Your task to perform on an android device: turn off javascript in the chrome app Image 0: 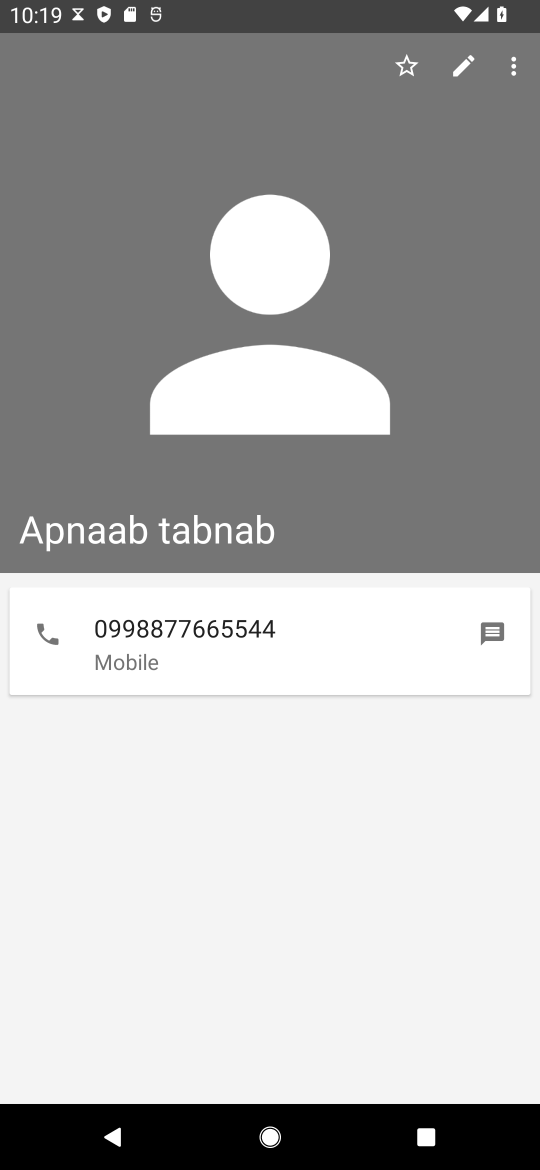
Step 0: press home button
Your task to perform on an android device: turn off javascript in the chrome app Image 1: 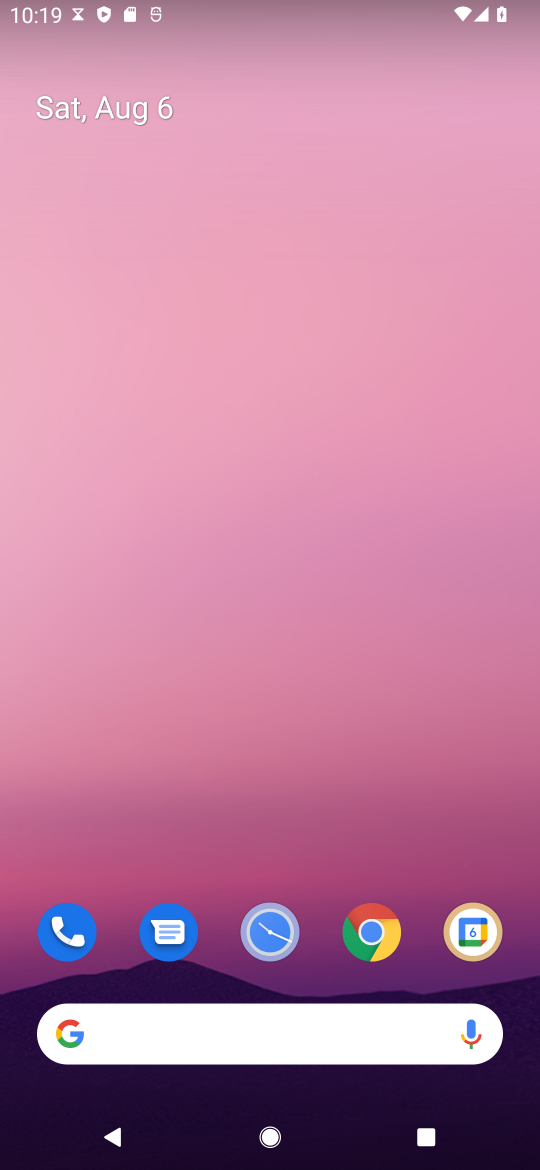
Step 1: click (367, 935)
Your task to perform on an android device: turn off javascript in the chrome app Image 2: 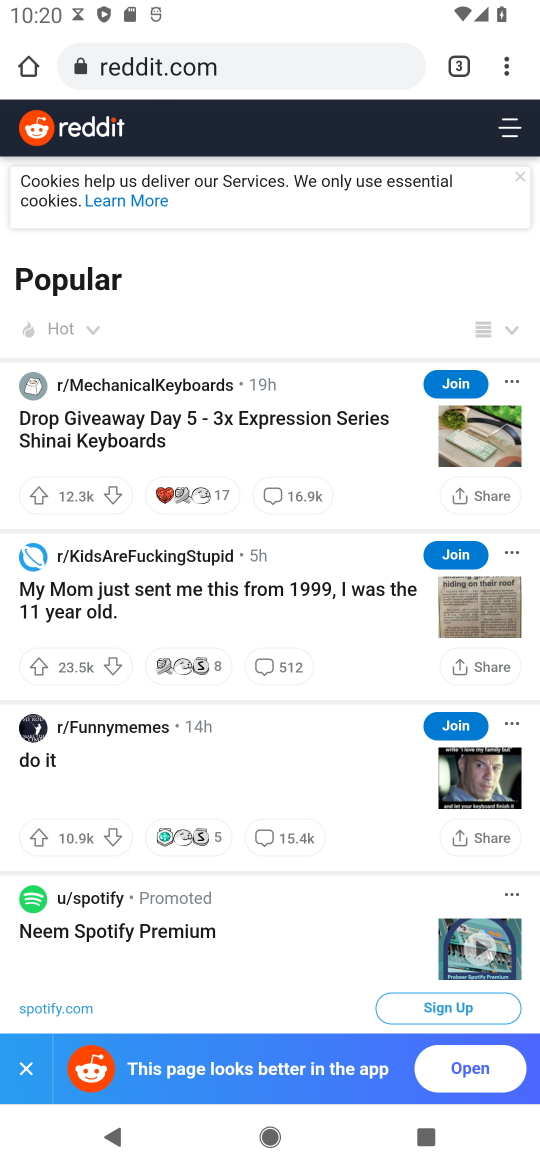
Step 2: click (506, 68)
Your task to perform on an android device: turn off javascript in the chrome app Image 3: 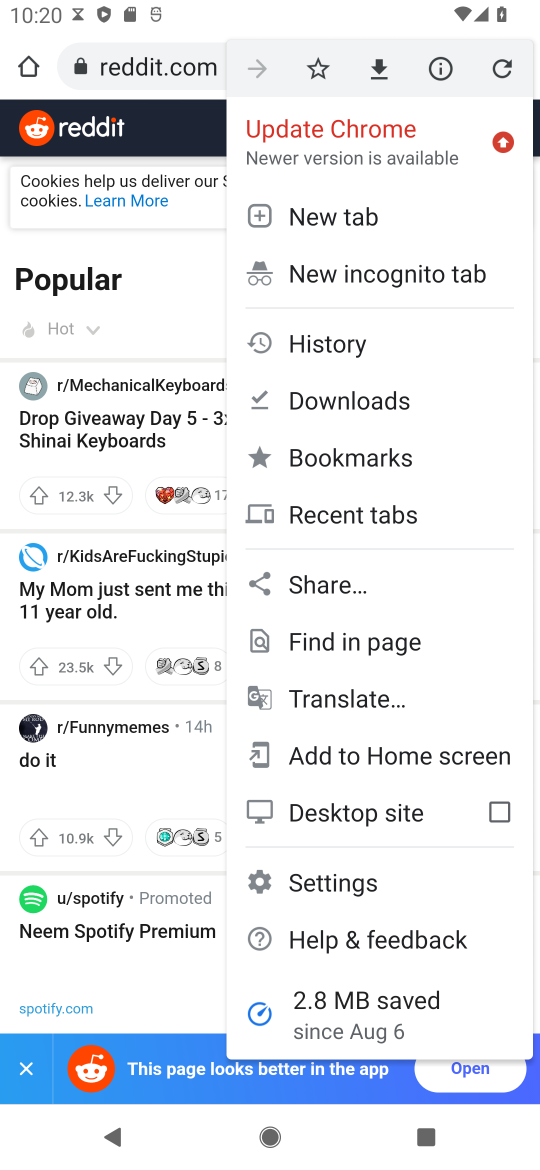
Step 3: click (341, 877)
Your task to perform on an android device: turn off javascript in the chrome app Image 4: 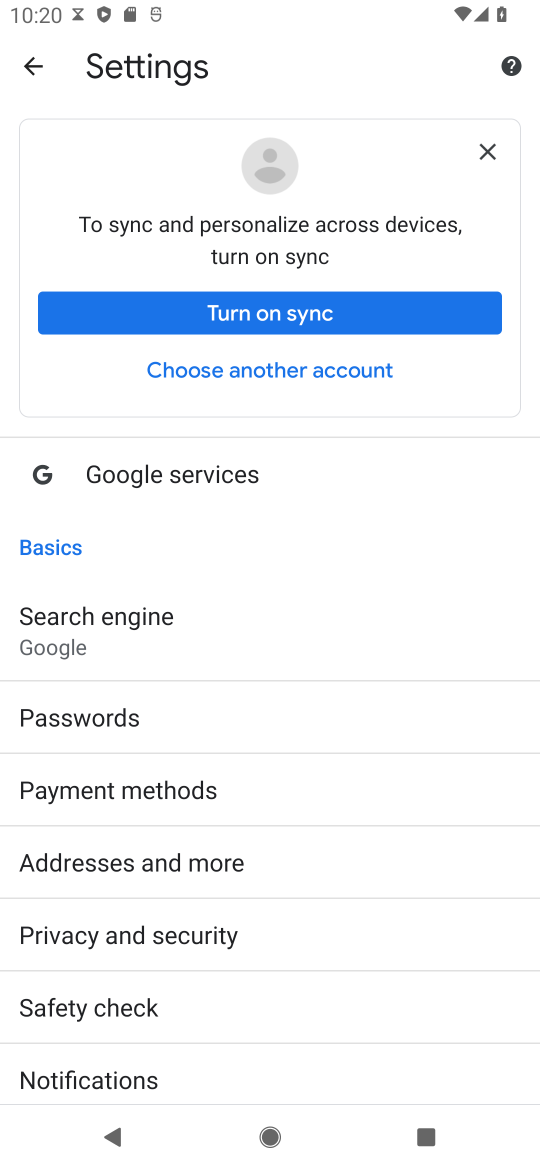
Step 4: drag from (115, 924) to (221, 786)
Your task to perform on an android device: turn off javascript in the chrome app Image 5: 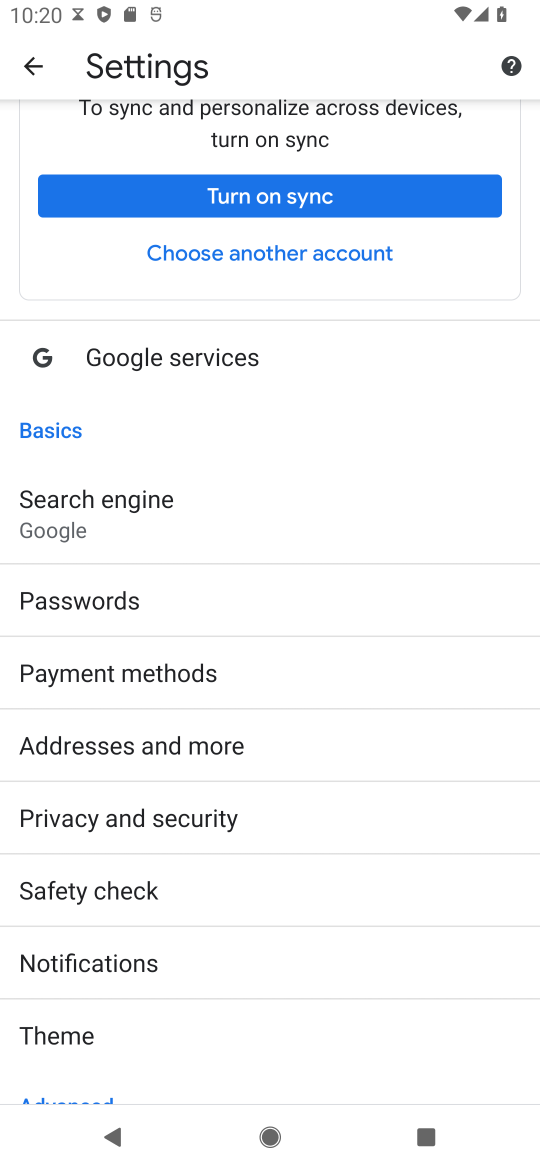
Step 5: drag from (203, 1008) to (346, 827)
Your task to perform on an android device: turn off javascript in the chrome app Image 6: 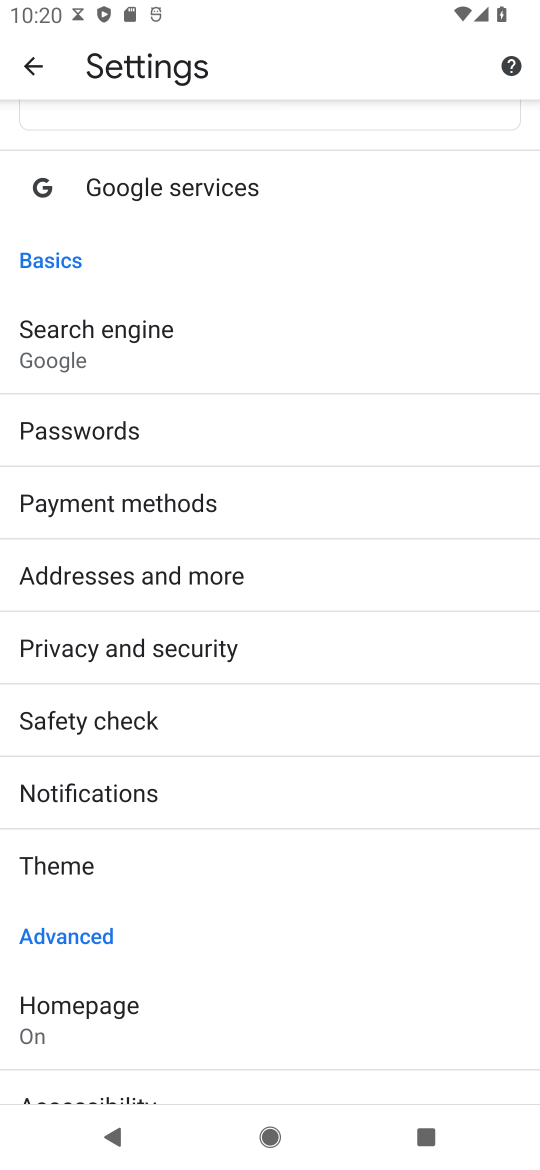
Step 6: drag from (167, 944) to (310, 725)
Your task to perform on an android device: turn off javascript in the chrome app Image 7: 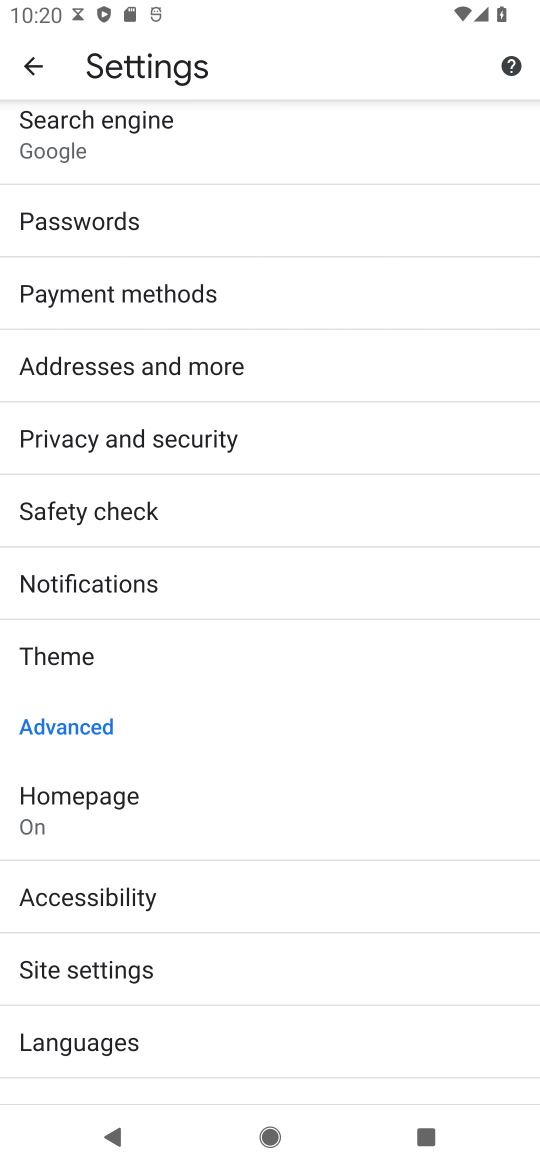
Step 7: drag from (225, 1000) to (334, 842)
Your task to perform on an android device: turn off javascript in the chrome app Image 8: 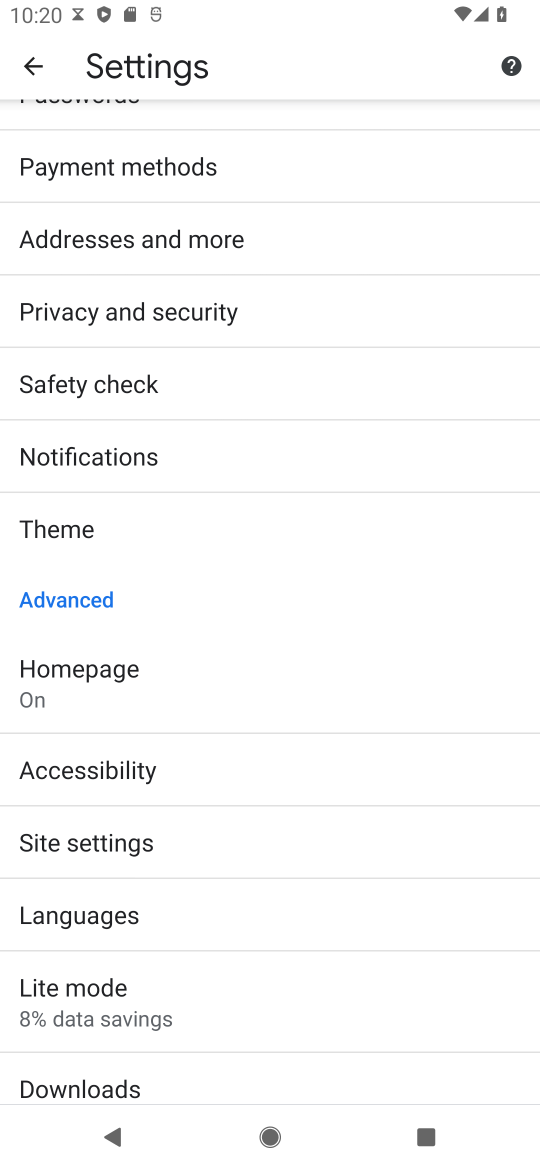
Step 8: click (142, 835)
Your task to perform on an android device: turn off javascript in the chrome app Image 9: 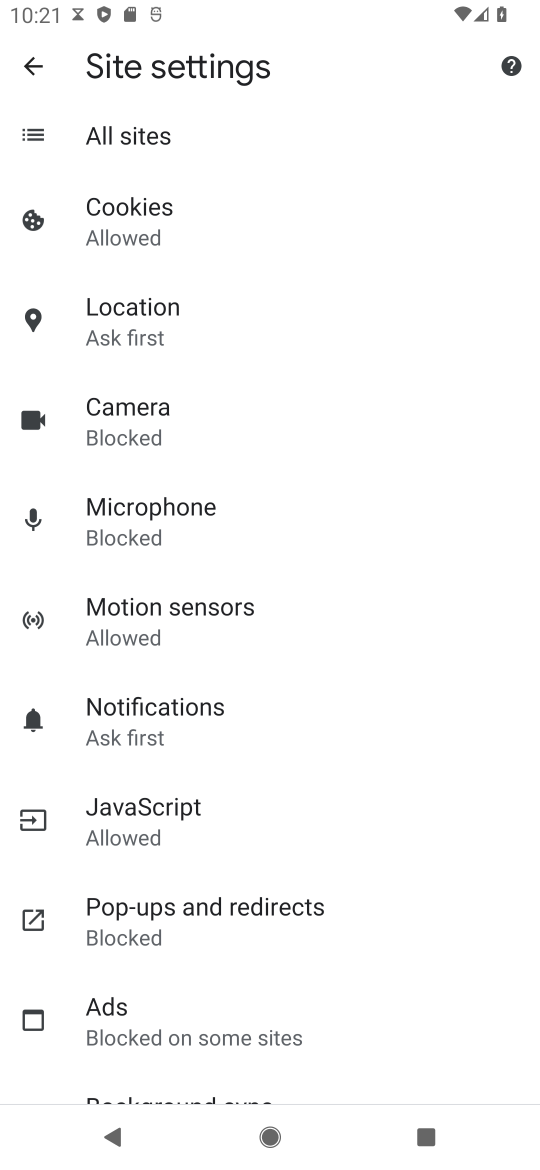
Step 9: click (158, 831)
Your task to perform on an android device: turn off javascript in the chrome app Image 10: 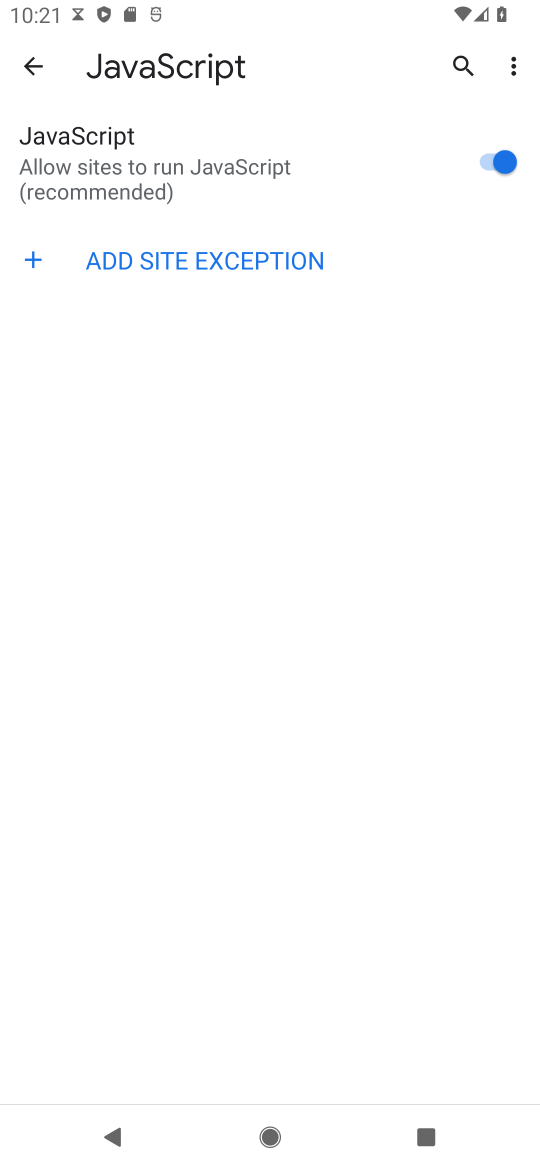
Step 10: click (490, 160)
Your task to perform on an android device: turn off javascript in the chrome app Image 11: 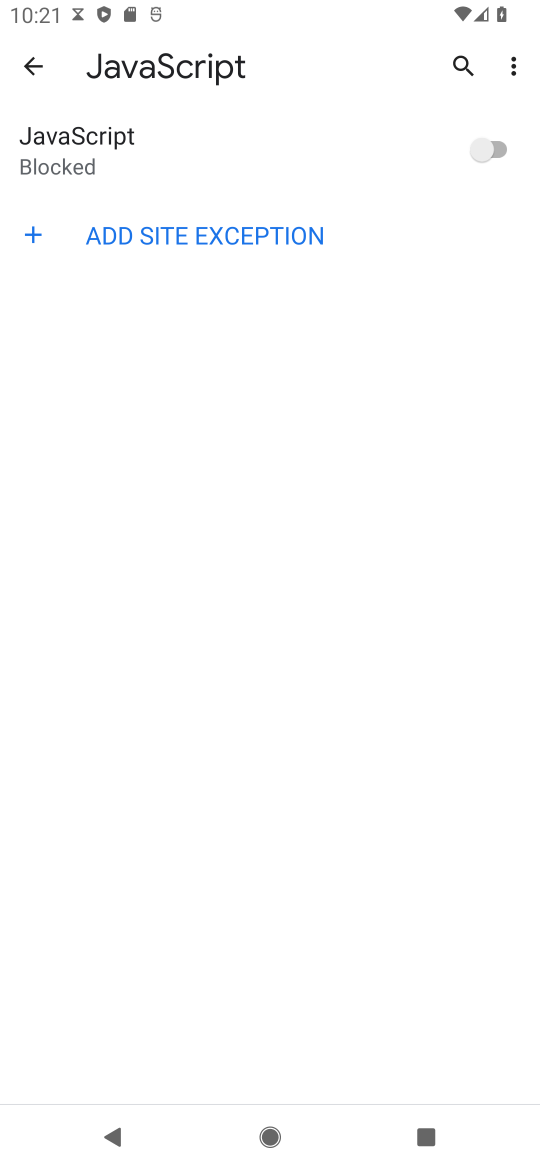
Step 11: task complete